Your task to perform on an android device: toggle airplane mode Image 0: 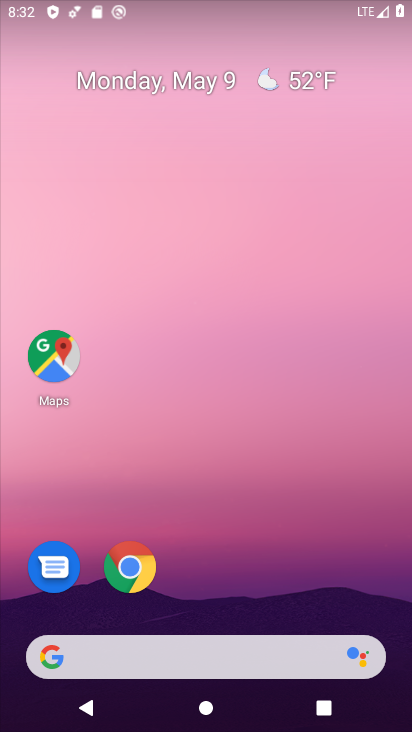
Step 0: drag from (344, 4) to (318, 436)
Your task to perform on an android device: toggle airplane mode Image 1: 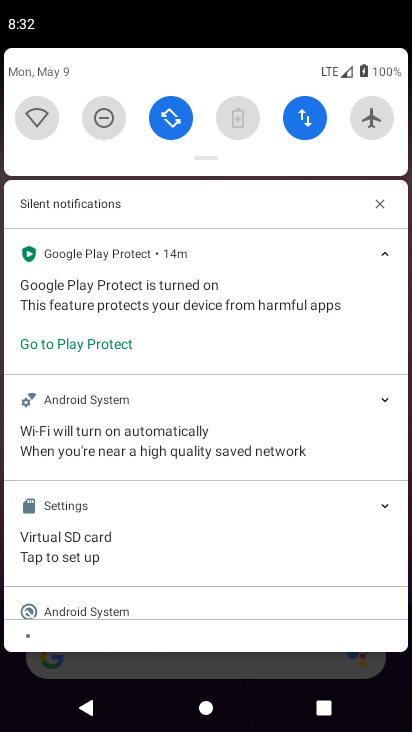
Step 1: click (360, 123)
Your task to perform on an android device: toggle airplane mode Image 2: 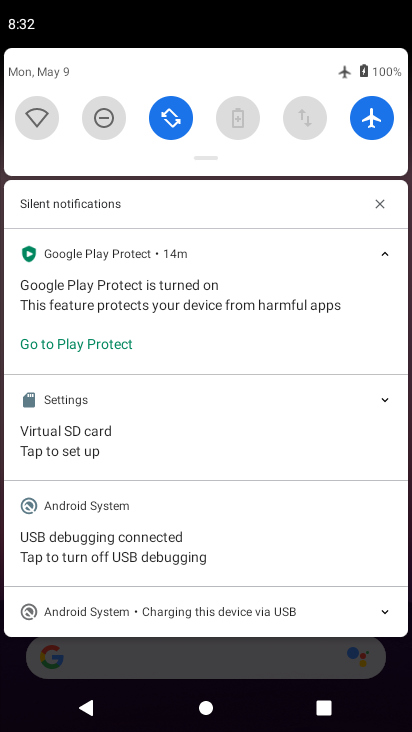
Step 2: task complete